Your task to perform on an android device: change the clock display to digital Image 0: 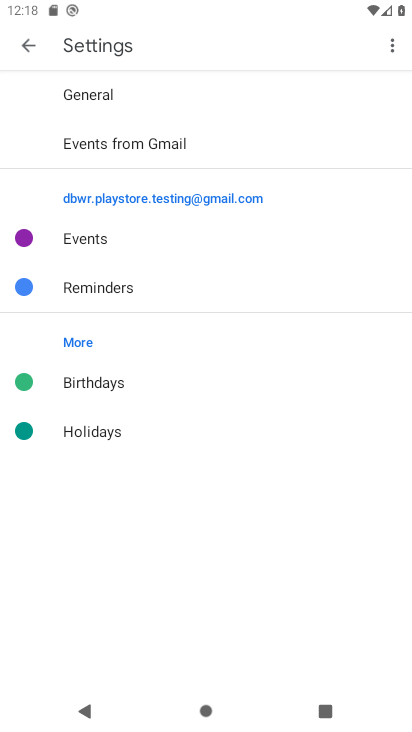
Step 0: press back button
Your task to perform on an android device: change the clock display to digital Image 1: 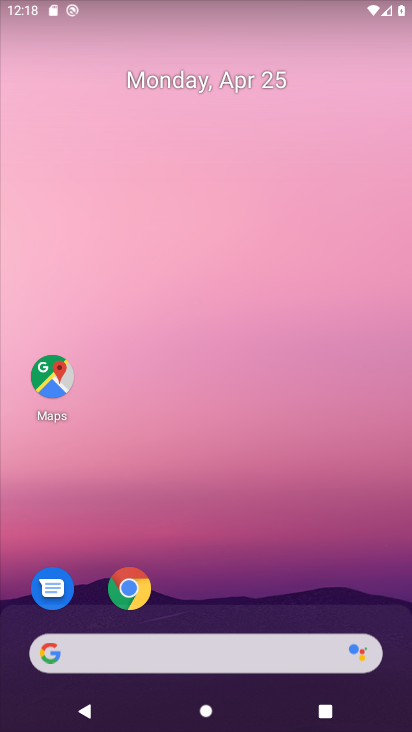
Step 1: drag from (198, 655) to (330, 12)
Your task to perform on an android device: change the clock display to digital Image 2: 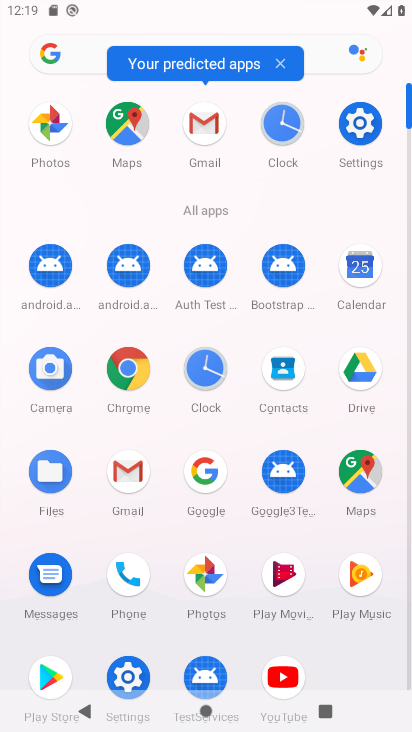
Step 2: click (208, 363)
Your task to perform on an android device: change the clock display to digital Image 3: 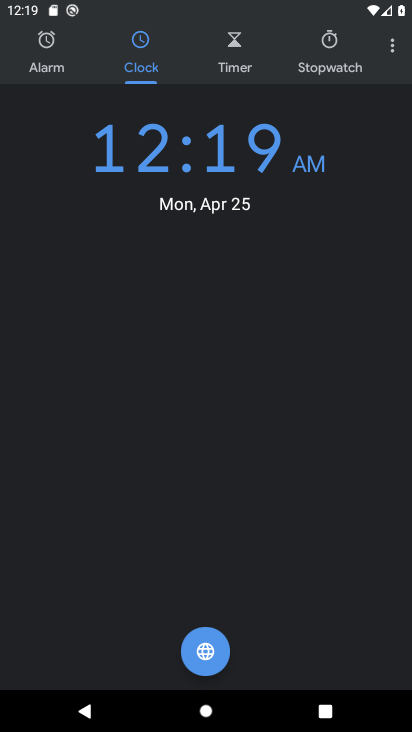
Step 3: click (391, 47)
Your task to perform on an android device: change the clock display to digital Image 4: 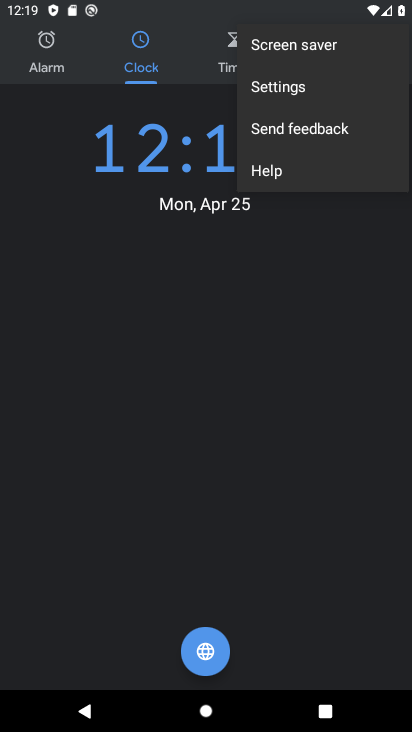
Step 4: click (348, 95)
Your task to perform on an android device: change the clock display to digital Image 5: 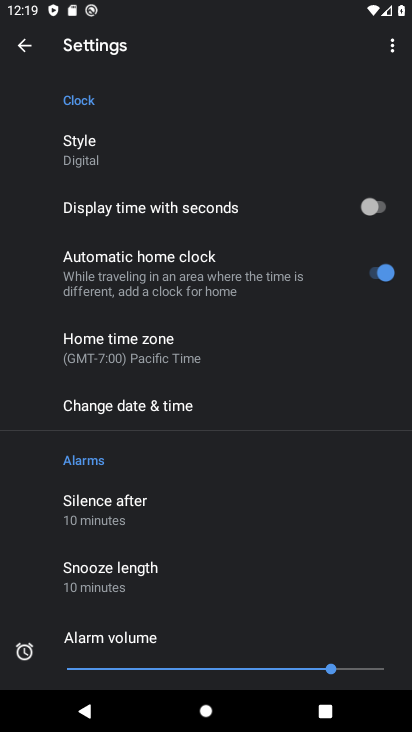
Step 5: click (185, 158)
Your task to perform on an android device: change the clock display to digital Image 6: 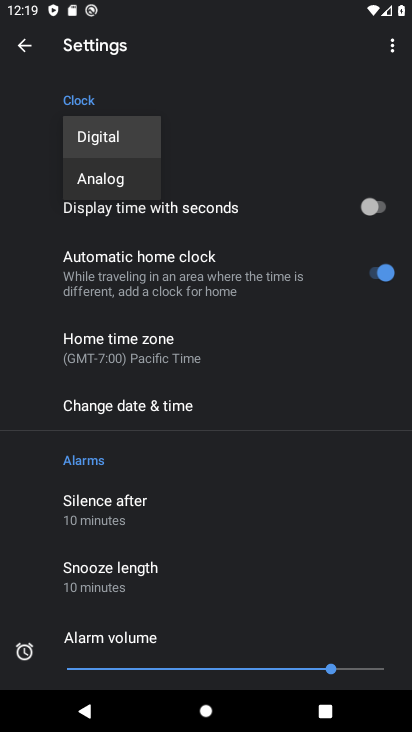
Step 6: task complete